Your task to perform on an android device: turn on sleep mode Image 0: 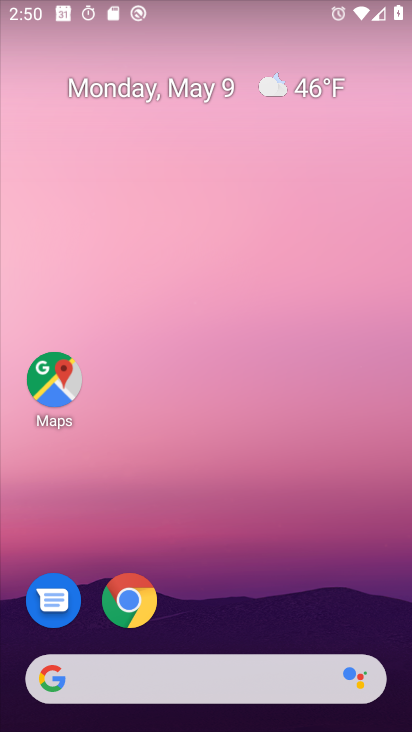
Step 0: drag from (201, 660) to (204, 58)
Your task to perform on an android device: turn on sleep mode Image 1: 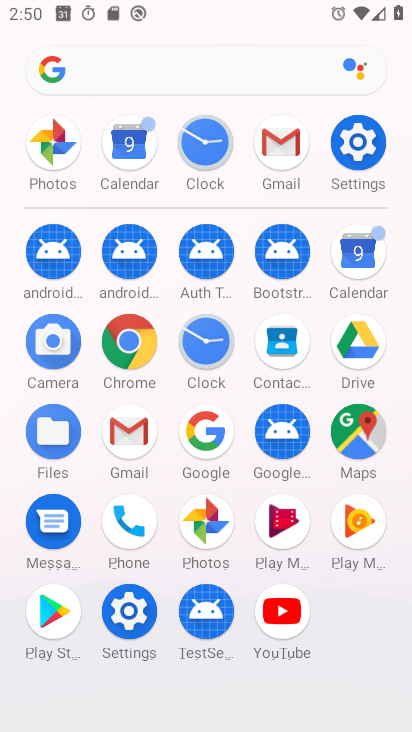
Step 1: click (354, 152)
Your task to perform on an android device: turn on sleep mode Image 2: 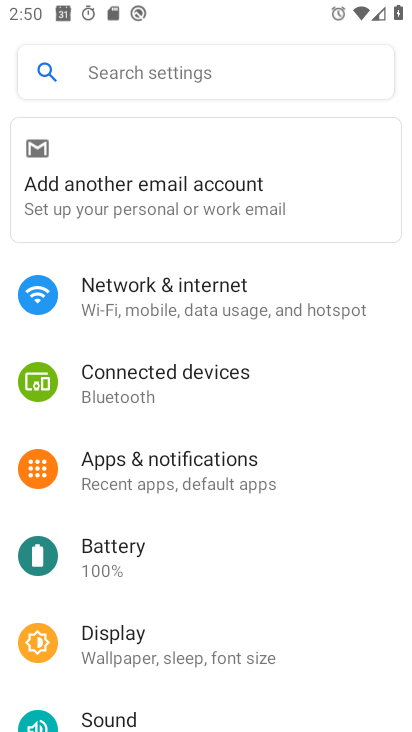
Step 2: click (148, 634)
Your task to perform on an android device: turn on sleep mode Image 3: 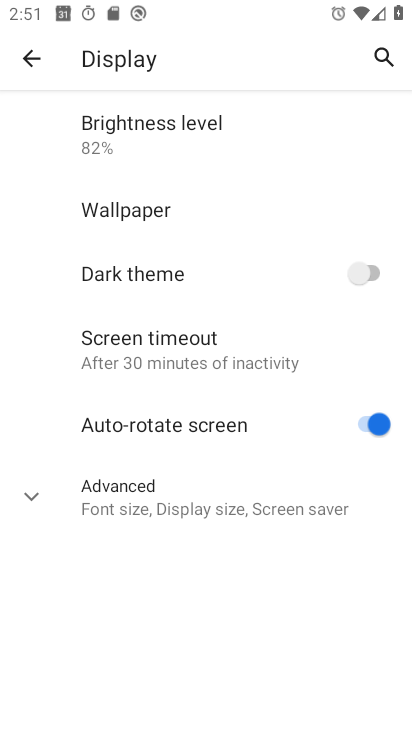
Step 3: click (177, 460)
Your task to perform on an android device: turn on sleep mode Image 4: 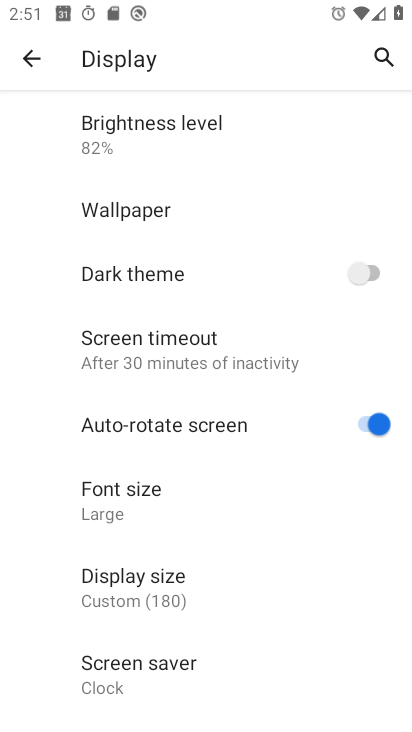
Step 4: task complete